Your task to perform on an android device: toggle wifi Image 0: 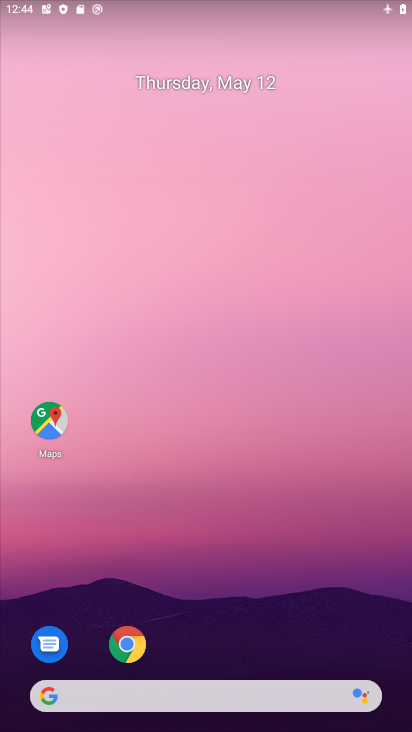
Step 0: drag from (267, 602) to (207, 132)
Your task to perform on an android device: toggle wifi Image 1: 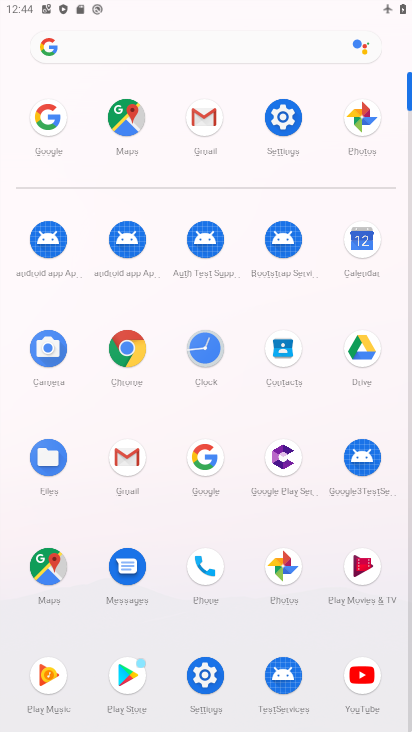
Step 1: click (293, 113)
Your task to perform on an android device: toggle wifi Image 2: 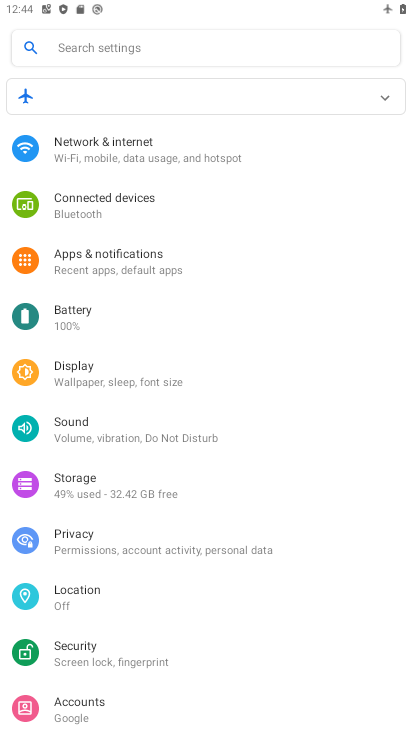
Step 2: click (208, 164)
Your task to perform on an android device: toggle wifi Image 3: 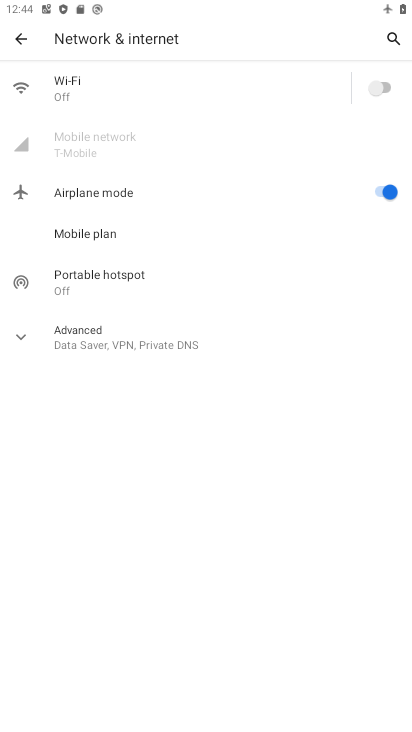
Step 3: click (379, 85)
Your task to perform on an android device: toggle wifi Image 4: 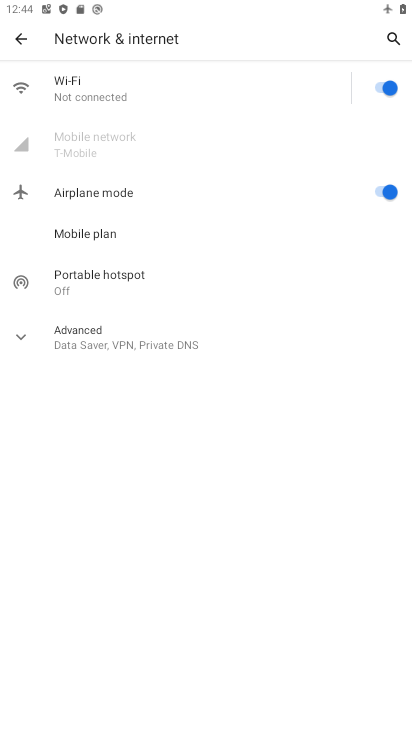
Step 4: task complete